Your task to perform on an android device: manage bookmarks in the chrome app Image 0: 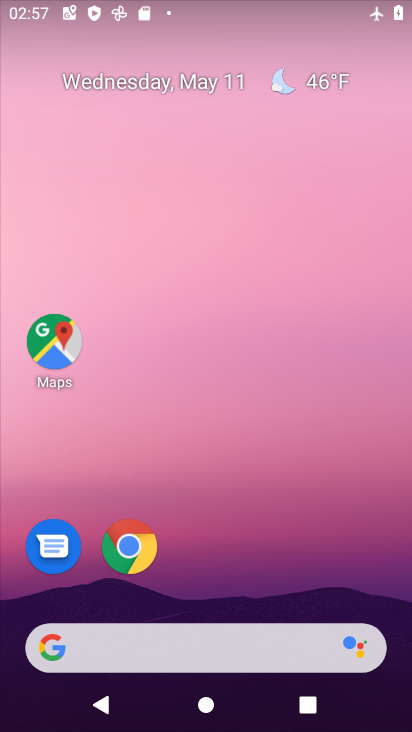
Step 0: drag from (200, 604) to (245, 316)
Your task to perform on an android device: manage bookmarks in the chrome app Image 1: 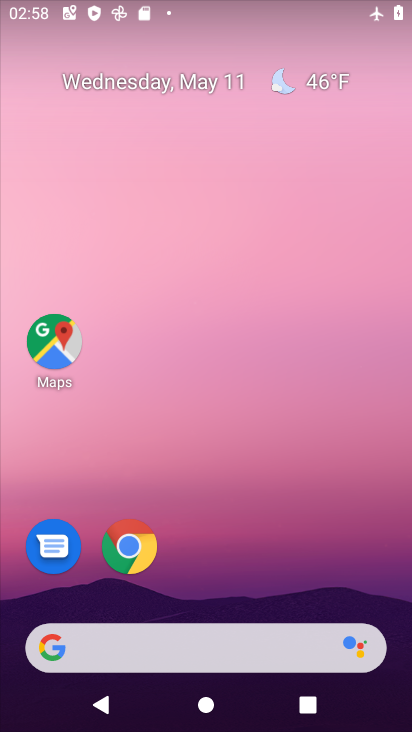
Step 1: drag from (195, 597) to (233, 231)
Your task to perform on an android device: manage bookmarks in the chrome app Image 2: 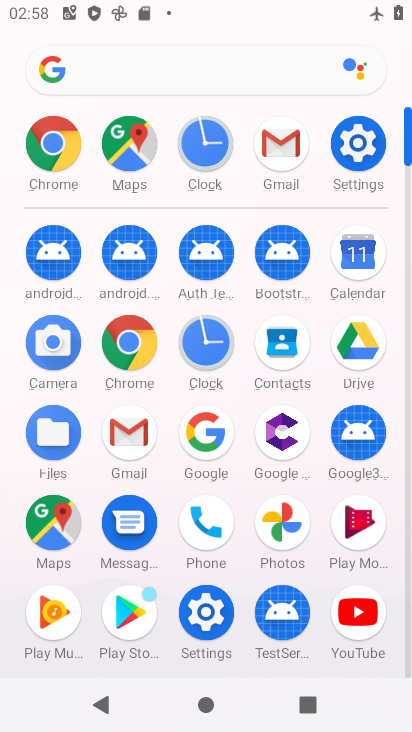
Step 2: click (127, 342)
Your task to perform on an android device: manage bookmarks in the chrome app Image 3: 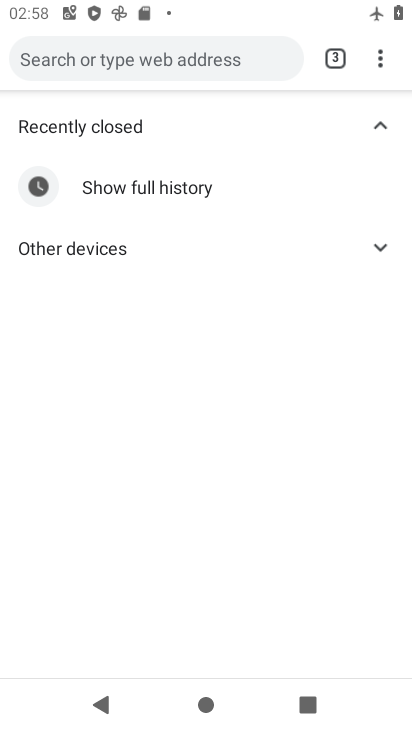
Step 3: click (388, 48)
Your task to perform on an android device: manage bookmarks in the chrome app Image 4: 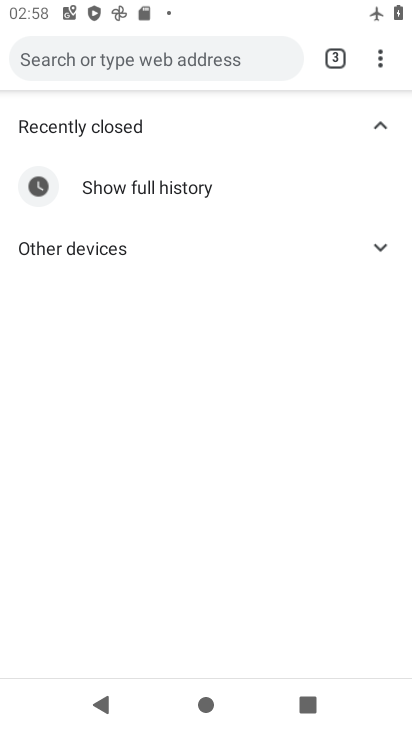
Step 4: task complete